Your task to perform on an android device: Open Chrome and go to the settings page Image 0: 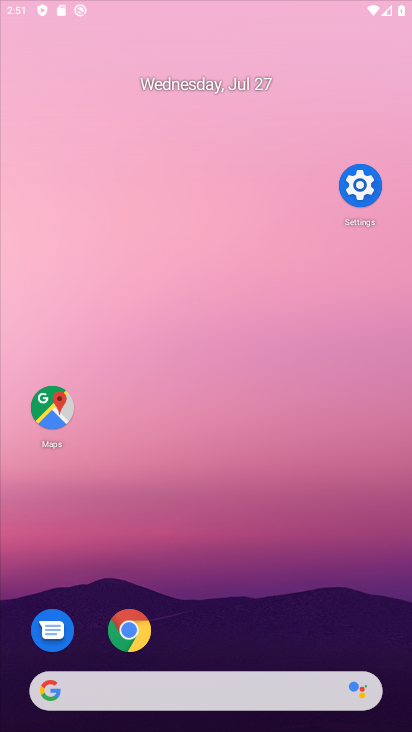
Step 0: press home button
Your task to perform on an android device: Open Chrome and go to the settings page Image 1: 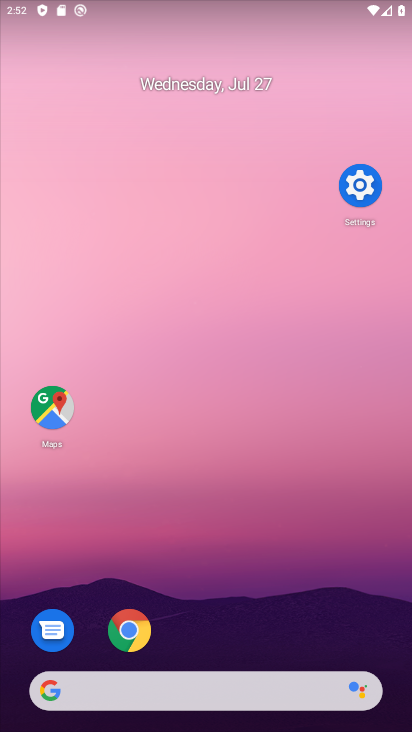
Step 1: drag from (241, 489) to (236, 177)
Your task to perform on an android device: Open Chrome and go to the settings page Image 2: 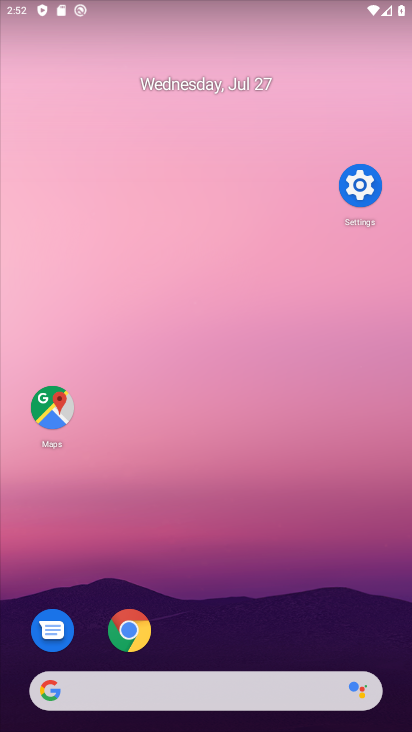
Step 2: drag from (225, 626) to (297, 28)
Your task to perform on an android device: Open Chrome and go to the settings page Image 3: 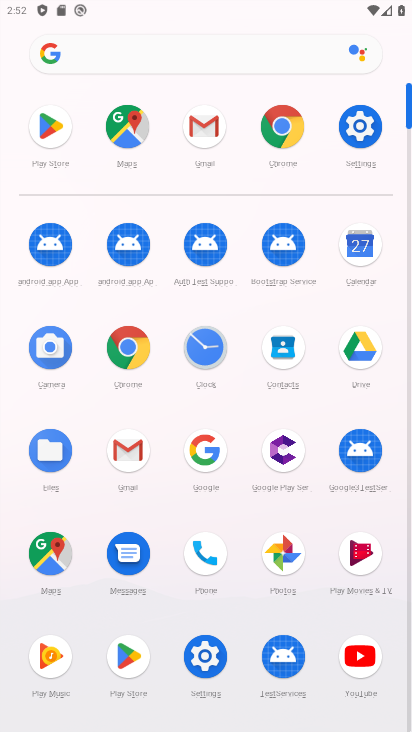
Step 3: click (291, 131)
Your task to perform on an android device: Open Chrome and go to the settings page Image 4: 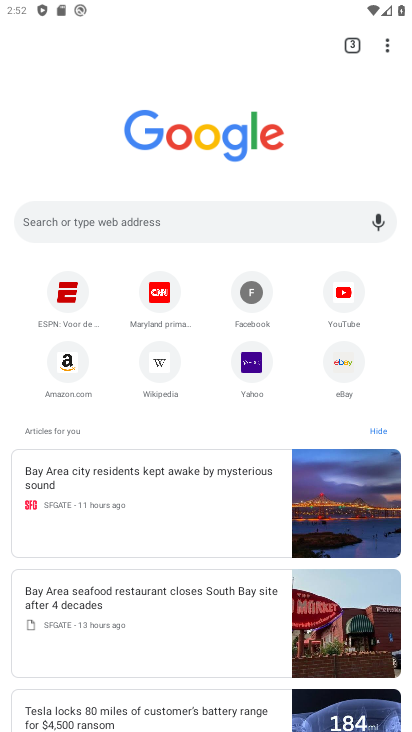
Step 4: task complete